Your task to perform on an android device: add a contact Image 0: 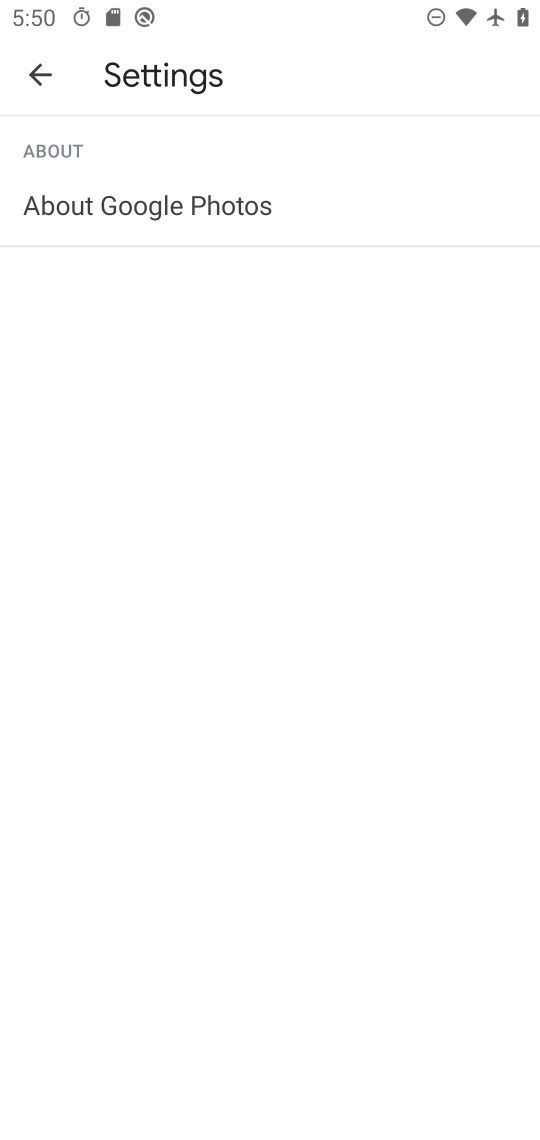
Step 0: press home button
Your task to perform on an android device: add a contact Image 1: 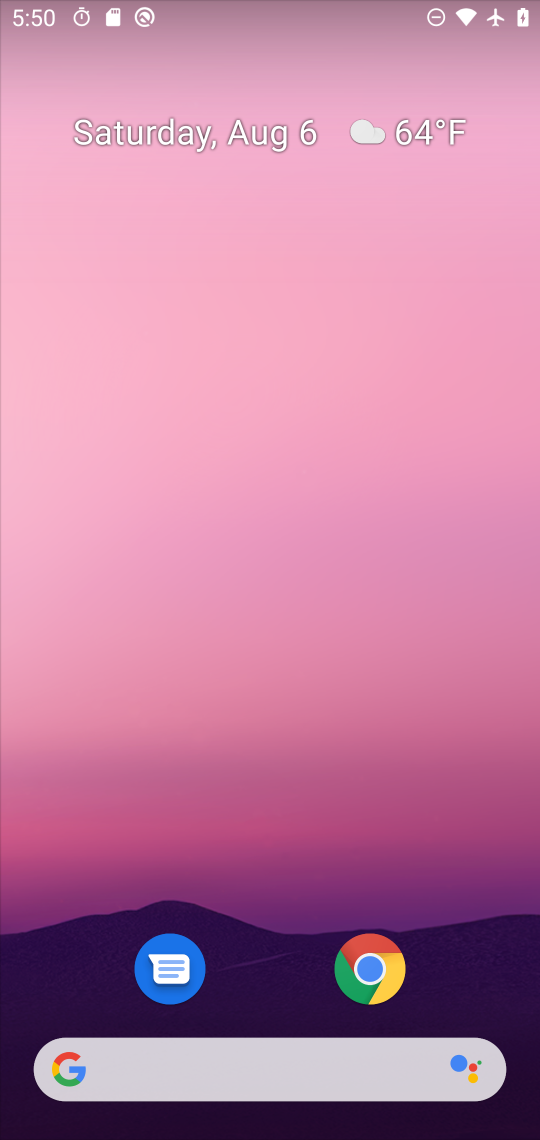
Step 1: drag from (281, 1013) to (371, 357)
Your task to perform on an android device: add a contact Image 2: 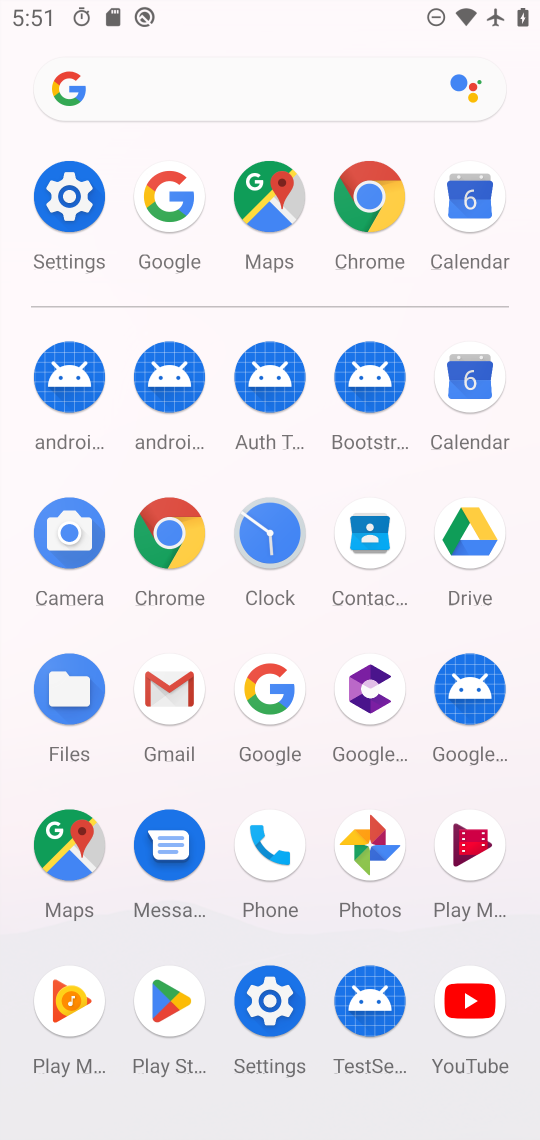
Step 2: click (356, 536)
Your task to perform on an android device: add a contact Image 3: 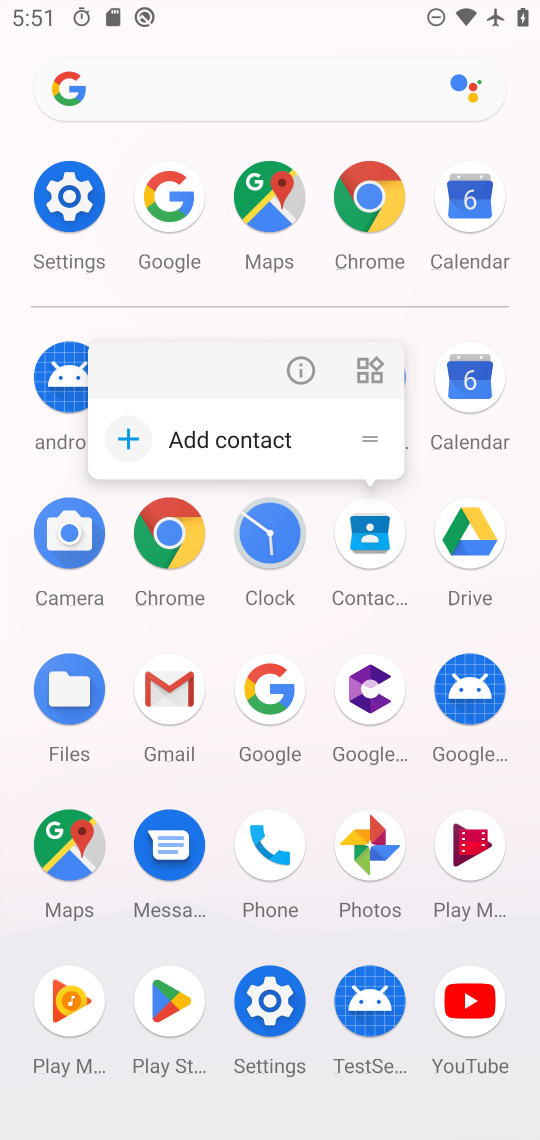
Step 3: click (356, 536)
Your task to perform on an android device: add a contact Image 4: 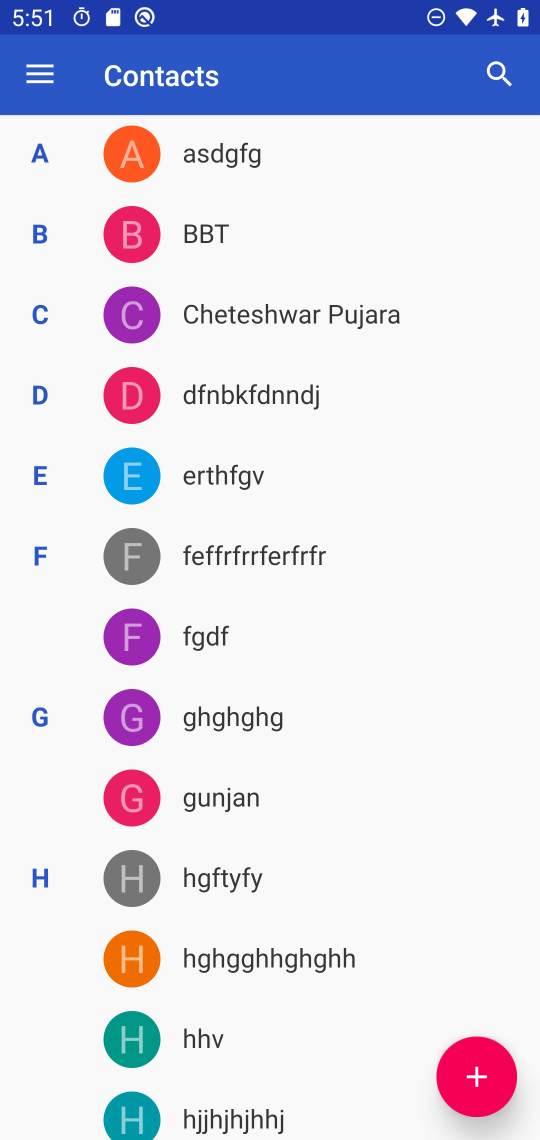
Step 4: click (475, 1079)
Your task to perform on an android device: add a contact Image 5: 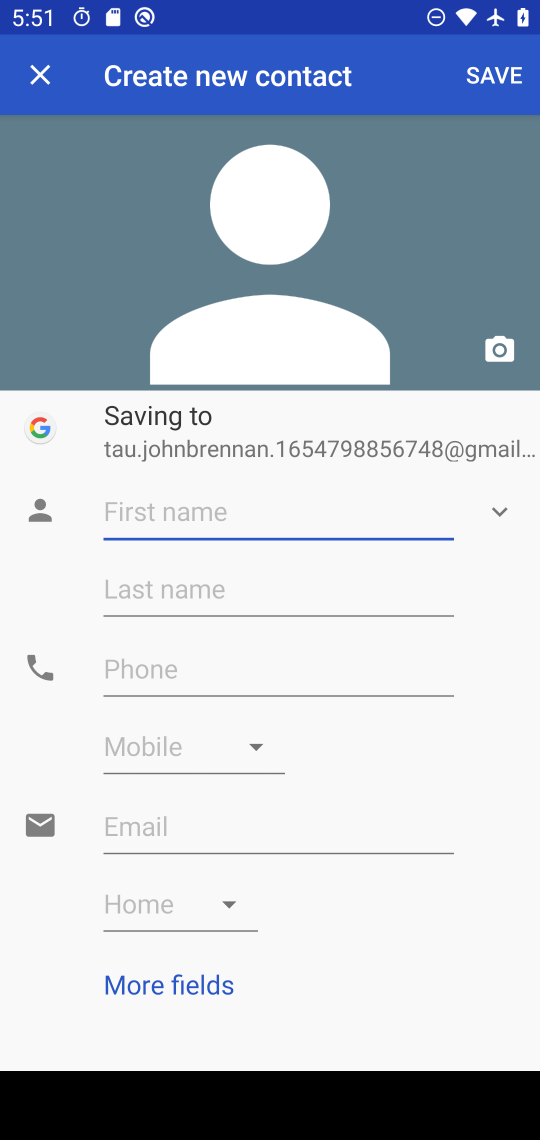
Step 5: type "nkhkjkj"
Your task to perform on an android device: add a contact Image 6: 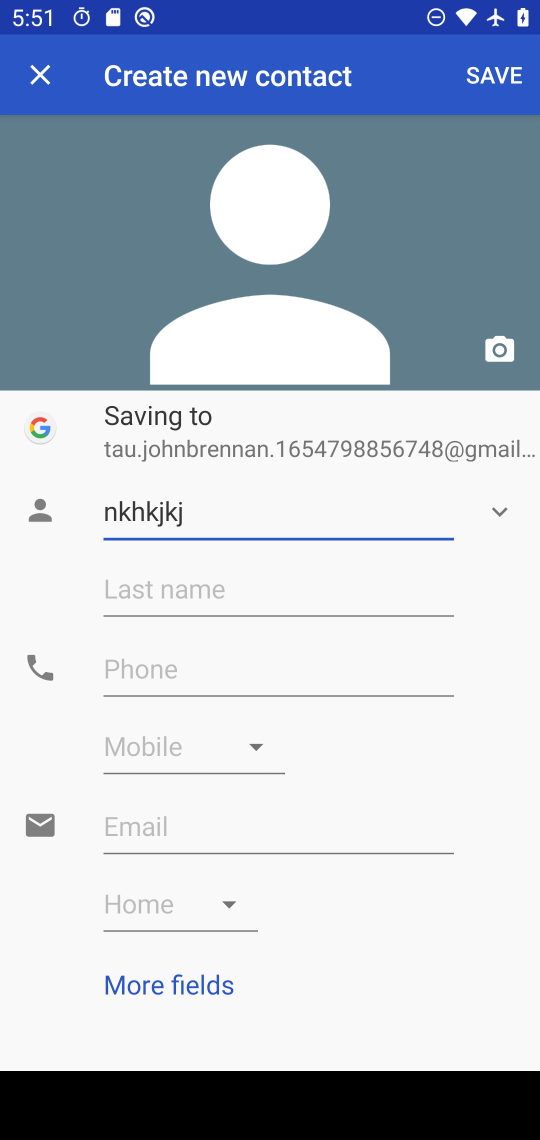
Step 6: click (236, 683)
Your task to perform on an android device: add a contact Image 7: 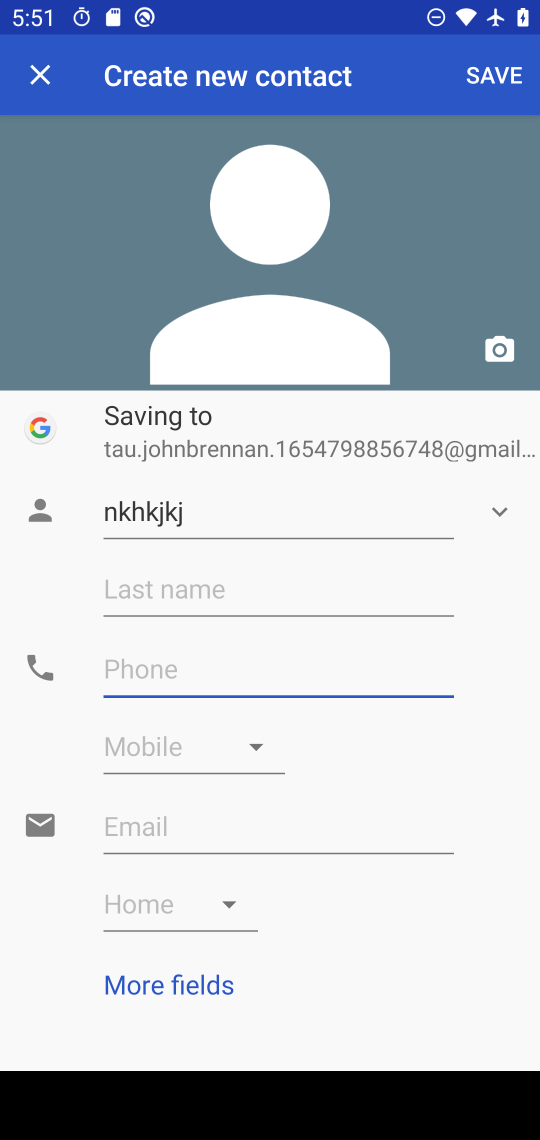
Step 7: type "787878"
Your task to perform on an android device: add a contact Image 8: 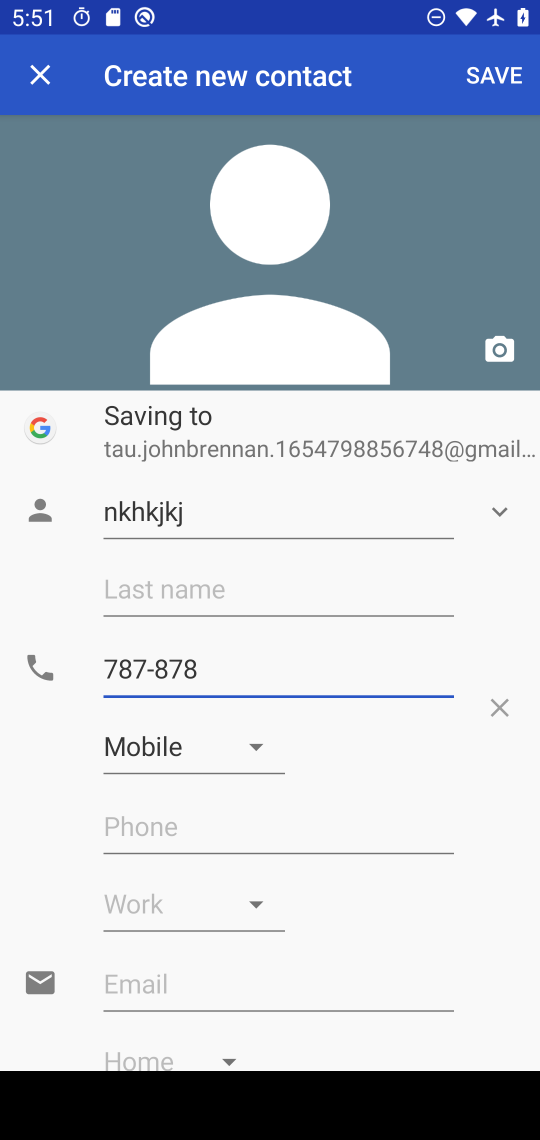
Step 8: click (496, 74)
Your task to perform on an android device: add a contact Image 9: 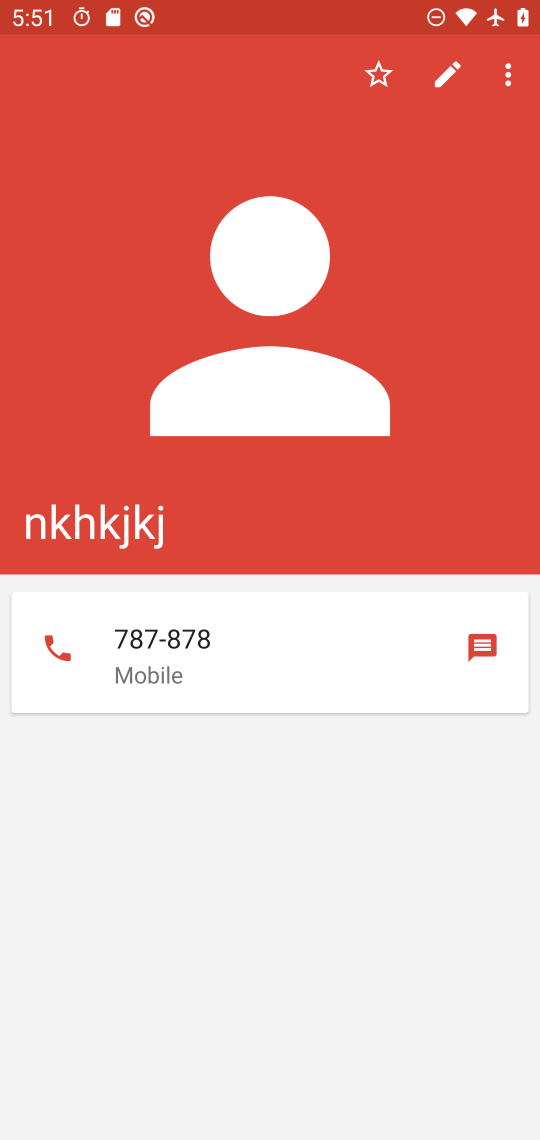
Step 9: task complete